Your task to perform on an android device: search for starred emails in the gmail app Image 0: 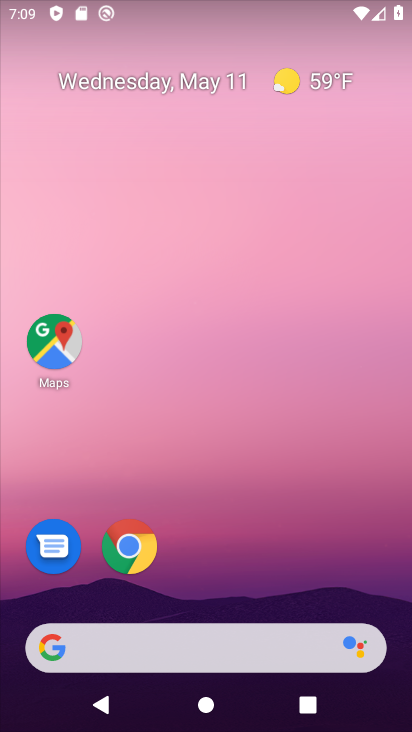
Step 0: drag from (292, 544) to (231, 1)
Your task to perform on an android device: search for starred emails in the gmail app Image 1: 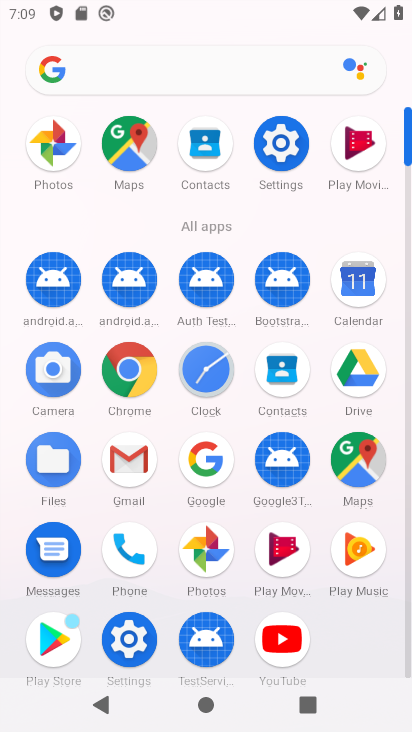
Step 1: click (122, 448)
Your task to perform on an android device: search for starred emails in the gmail app Image 2: 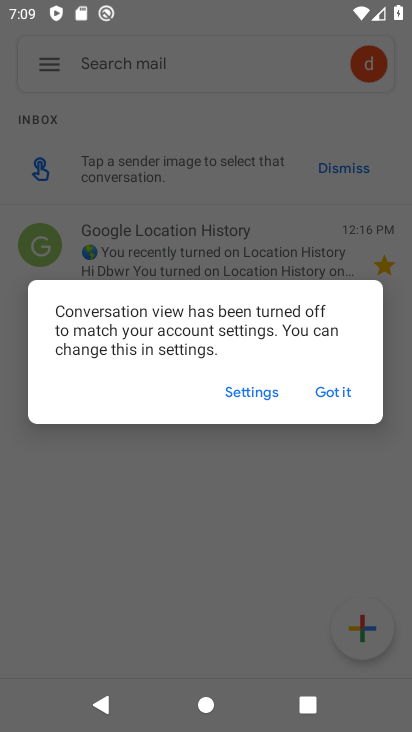
Step 2: click (338, 388)
Your task to perform on an android device: search for starred emails in the gmail app Image 3: 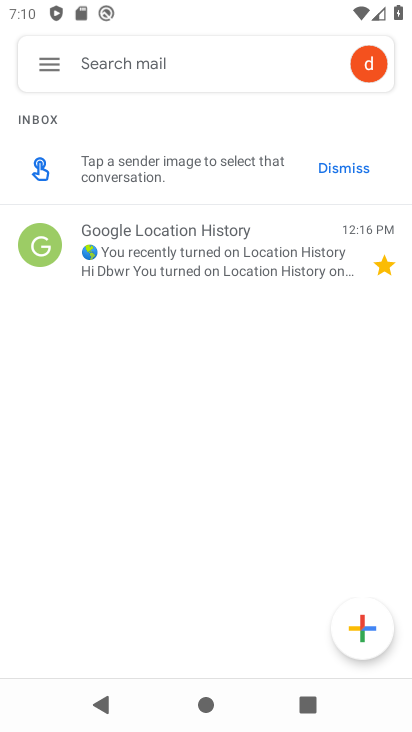
Step 3: click (36, 71)
Your task to perform on an android device: search for starred emails in the gmail app Image 4: 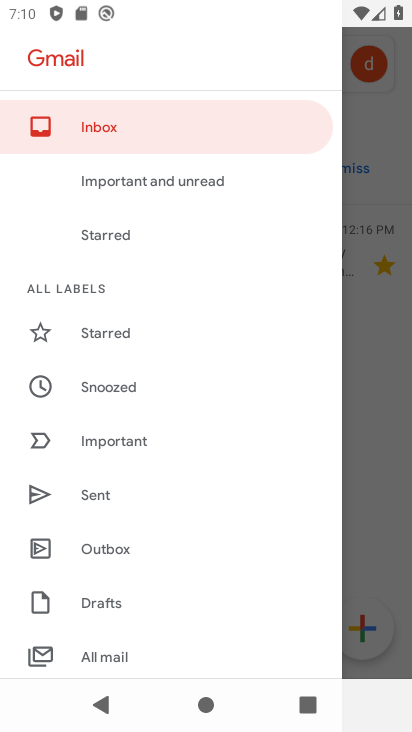
Step 4: click (153, 236)
Your task to perform on an android device: search for starred emails in the gmail app Image 5: 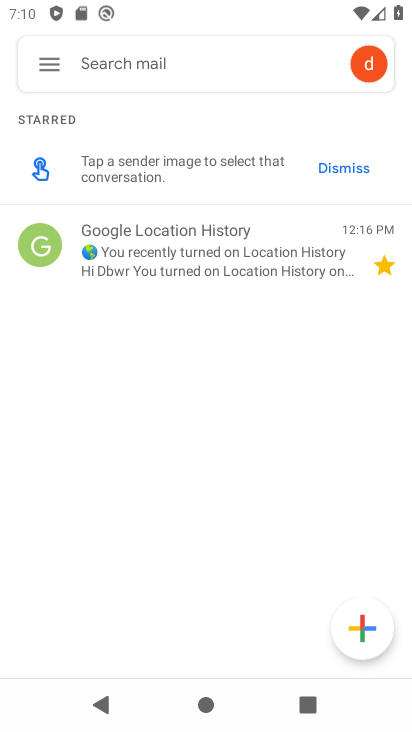
Step 5: task complete